Your task to perform on an android device: check google app version Image 0: 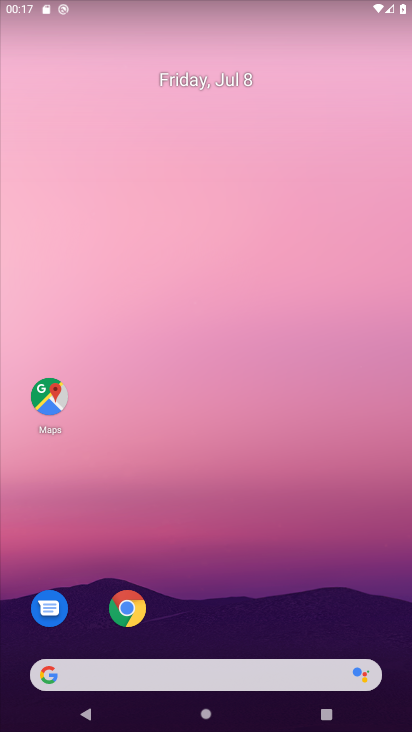
Step 0: drag from (161, 641) to (199, 167)
Your task to perform on an android device: check google app version Image 1: 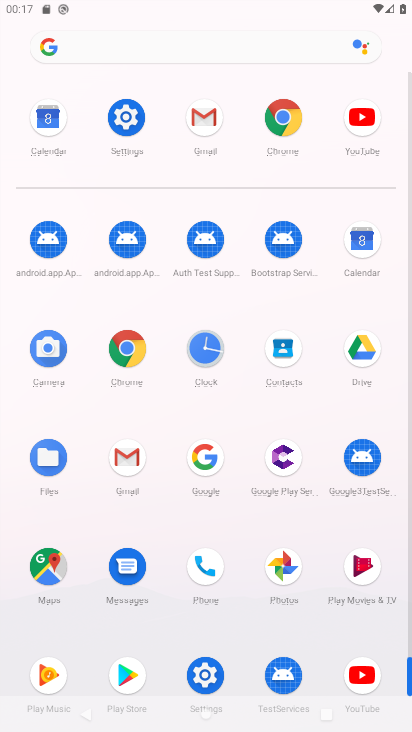
Step 1: click (202, 102)
Your task to perform on an android device: check google app version Image 2: 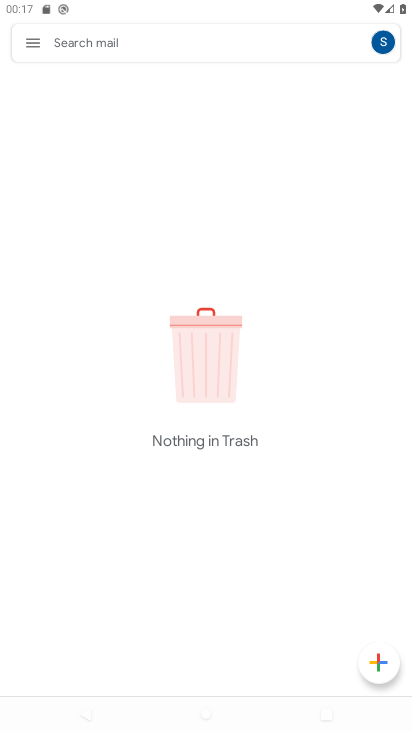
Step 2: click (34, 43)
Your task to perform on an android device: check google app version Image 3: 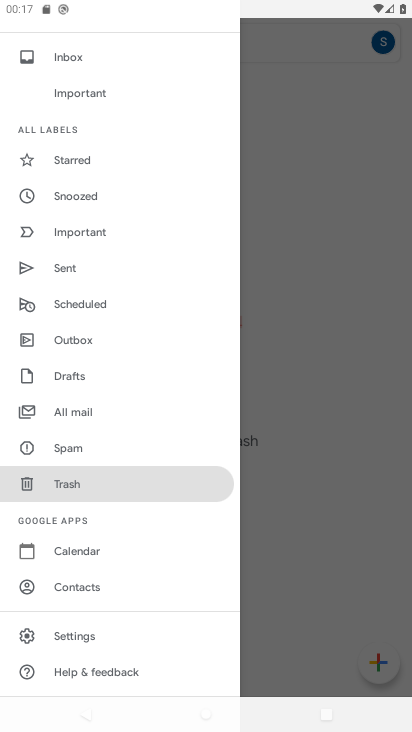
Step 3: press home button
Your task to perform on an android device: check google app version Image 4: 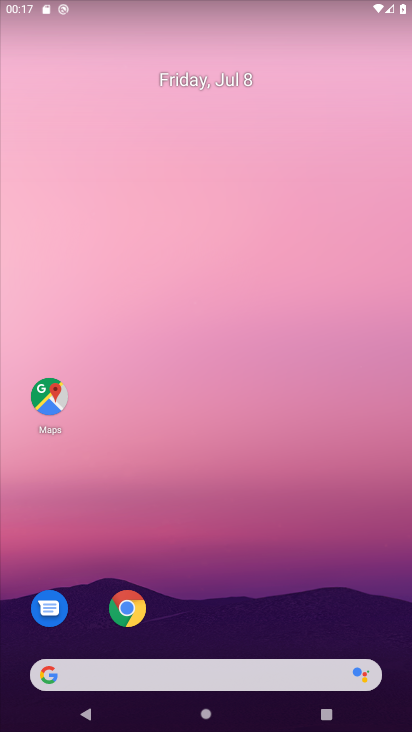
Step 4: drag from (204, 611) to (210, 143)
Your task to perform on an android device: check google app version Image 5: 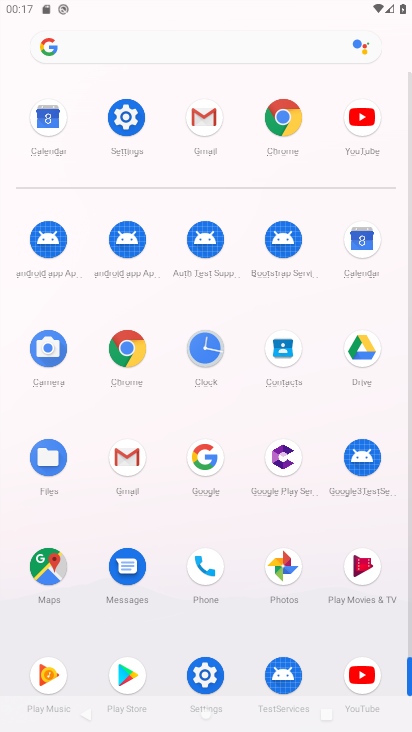
Step 5: click (211, 451)
Your task to perform on an android device: check google app version Image 6: 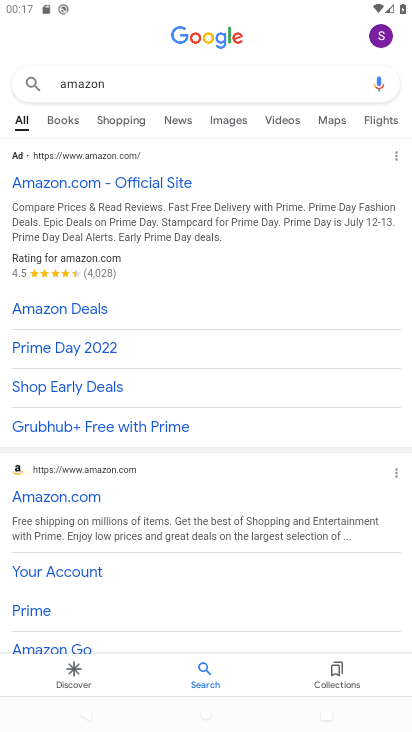
Step 6: click (389, 29)
Your task to perform on an android device: check google app version Image 7: 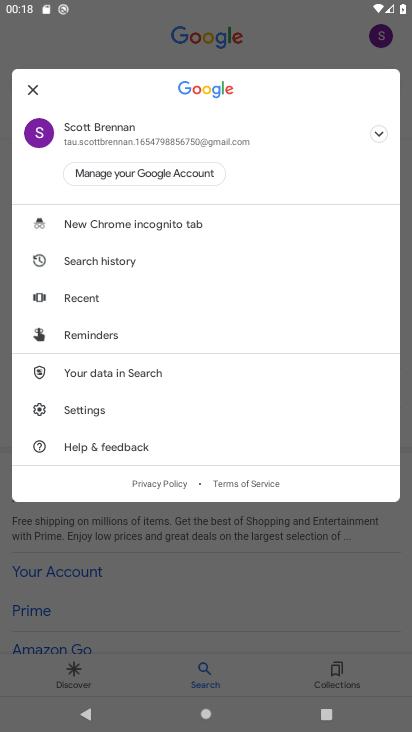
Step 7: click (91, 407)
Your task to perform on an android device: check google app version Image 8: 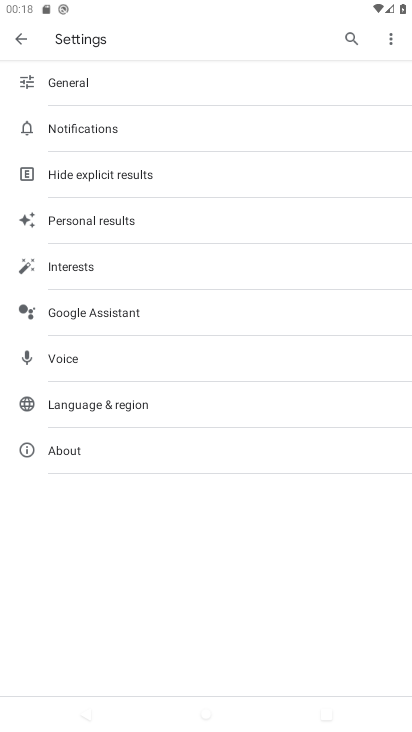
Step 8: click (104, 448)
Your task to perform on an android device: check google app version Image 9: 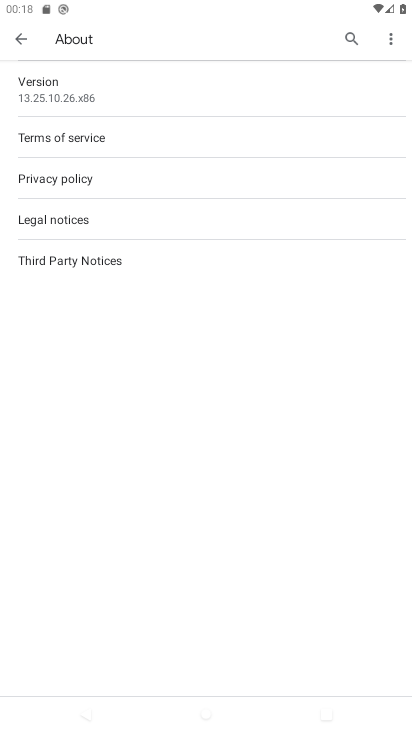
Step 9: click (33, 93)
Your task to perform on an android device: check google app version Image 10: 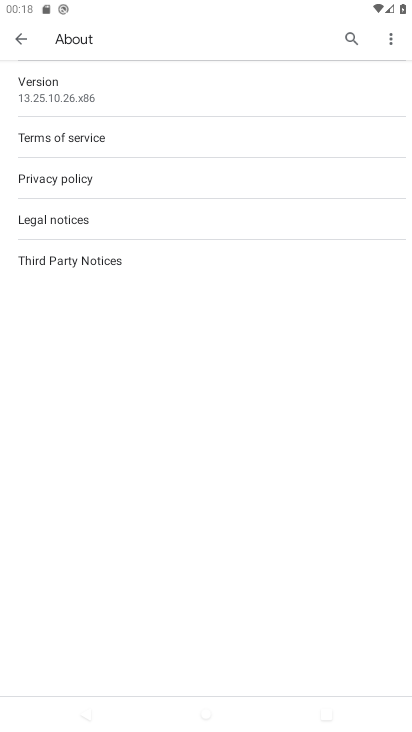
Step 10: task complete